Your task to perform on an android device: Open calendar and show me the fourth week of next month Image 0: 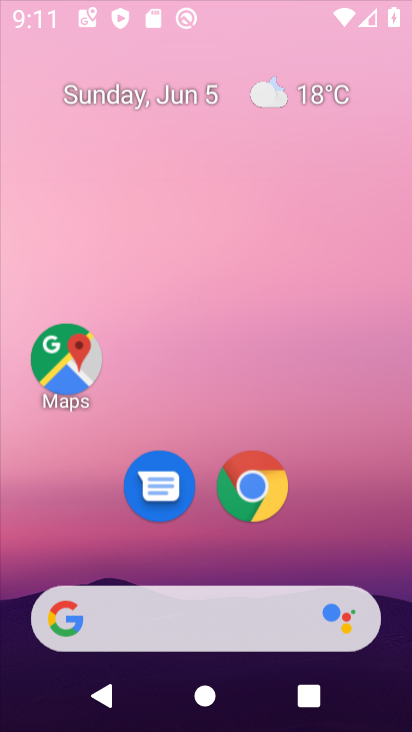
Step 0: click (345, 152)
Your task to perform on an android device: Open calendar and show me the fourth week of next month Image 1: 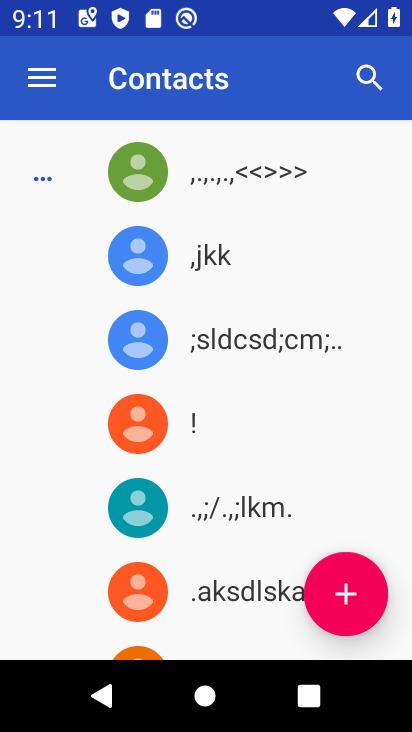
Step 1: press home button
Your task to perform on an android device: Open calendar and show me the fourth week of next month Image 2: 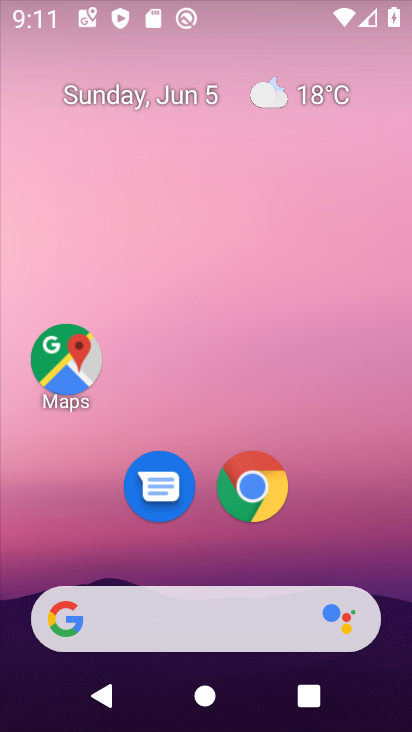
Step 2: drag from (338, 518) to (351, 120)
Your task to perform on an android device: Open calendar and show me the fourth week of next month Image 3: 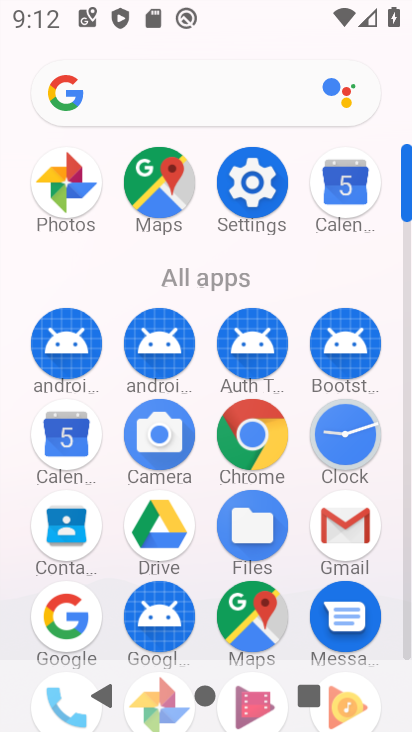
Step 3: click (343, 192)
Your task to perform on an android device: Open calendar and show me the fourth week of next month Image 4: 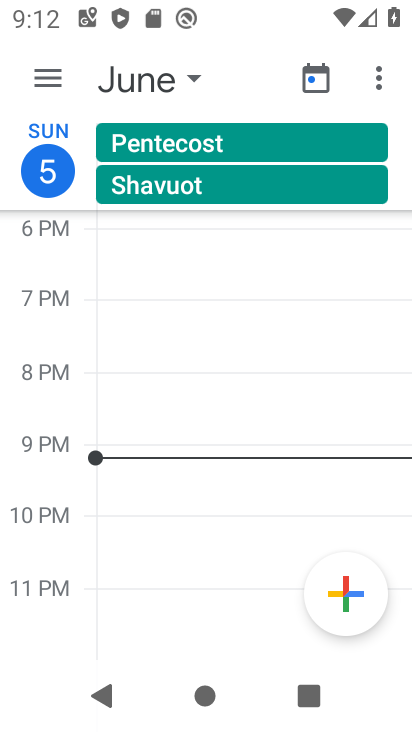
Step 4: click (151, 83)
Your task to perform on an android device: Open calendar and show me the fourth week of next month Image 5: 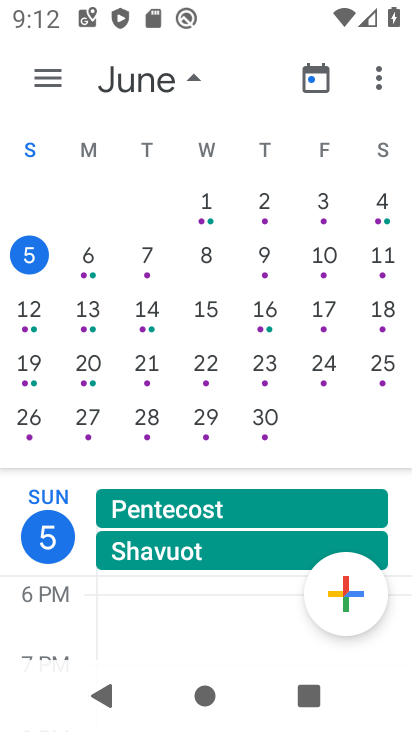
Step 5: click (29, 364)
Your task to perform on an android device: Open calendar and show me the fourth week of next month Image 6: 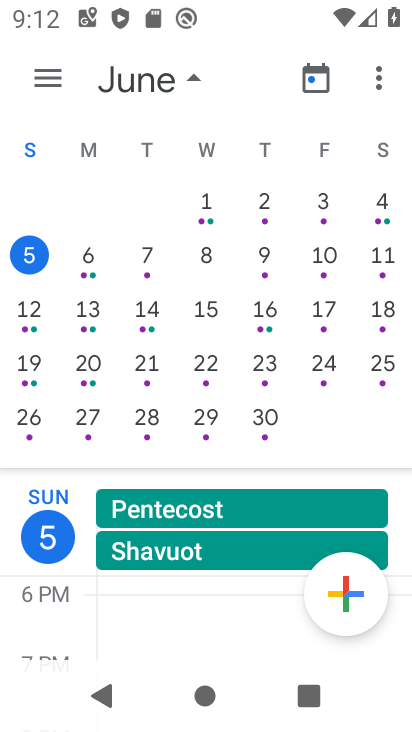
Step 6: click (37, 365)
Your task to perform on an android device: Open calendar and show me the fourth week of next month Image 7: 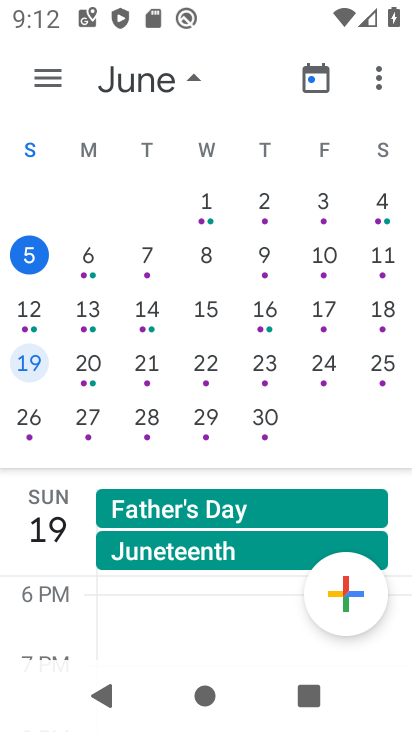
Step 7: task complete